Your task to perform on an android device: turn on location history Image 0: 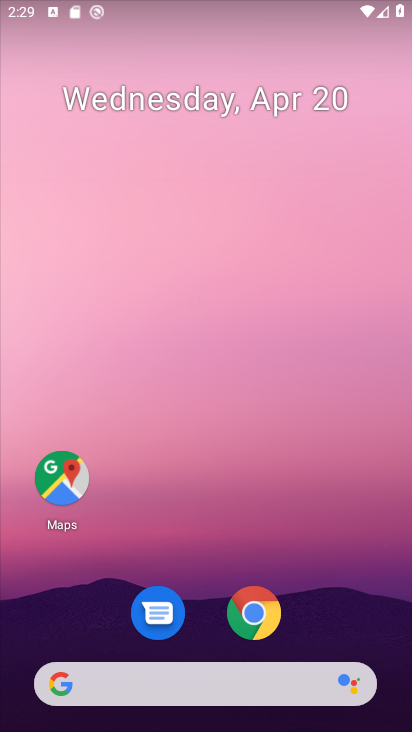
Step 0: drag from (282, 398) to (262, 8)
Your task to perform on an android device: turn on location history Image 1: 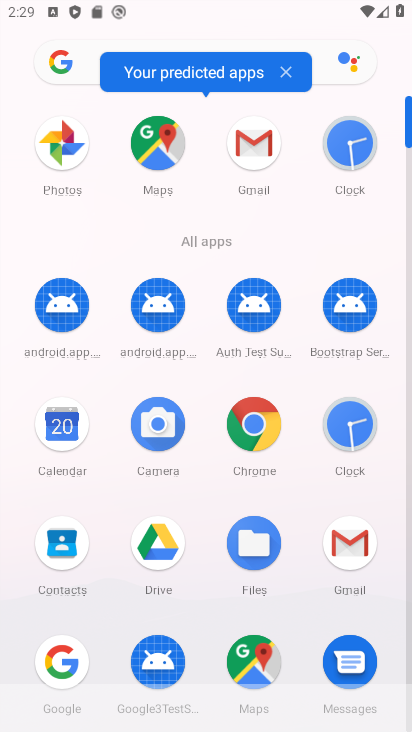
Step 1: drag from (215, 477) to (245, 205)
Your task to perform on an android device: turn on location history Image 2: 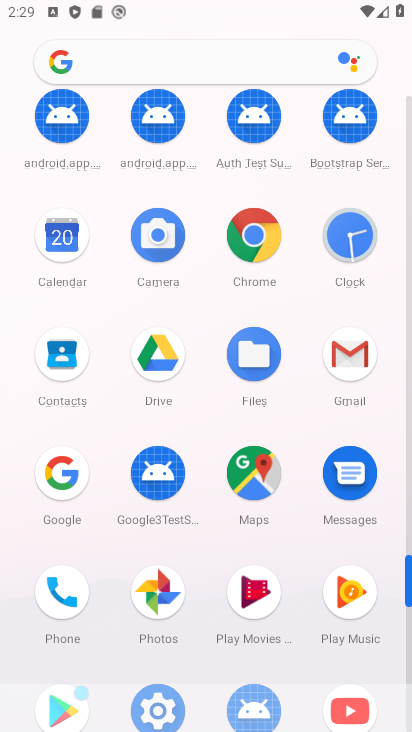
Step 2: drag from (212, 578) to (220, 274)
Your task to perform on an android device: turn on location history Image 3: 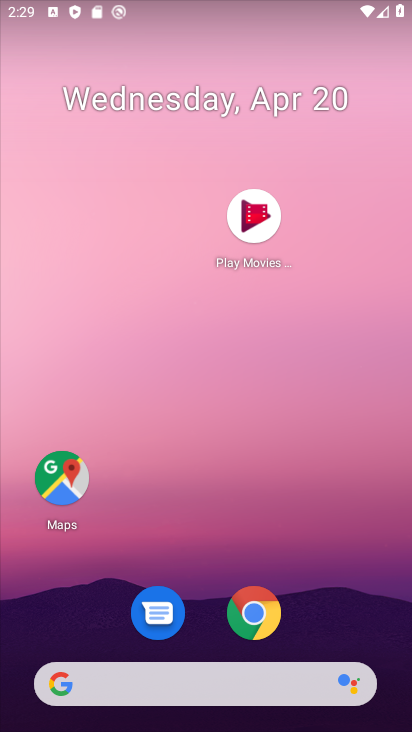
Step 3: drag from (216, 522) to (212, 35)
Your task to perform on an android device: turn on location history Image 4: 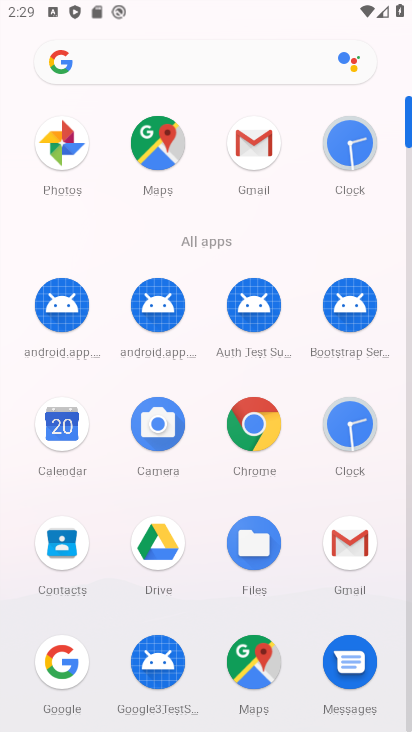
Step 4: drag from (212, 439) to (214, 212)
Your task to perform on an android device: turn on location history Image 5: 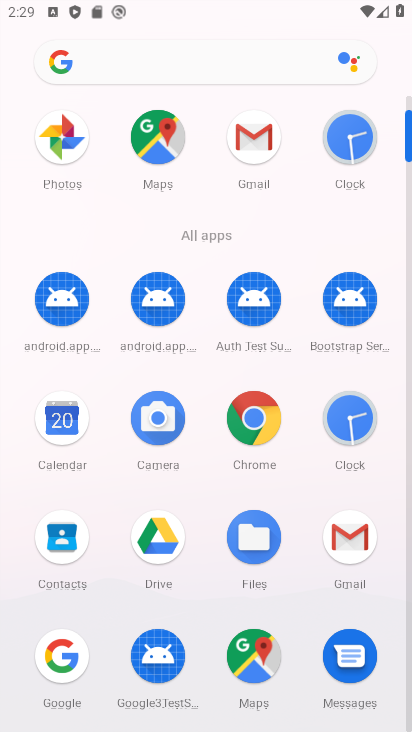
Step 5: drag from (208, 394) to (194, 203)
Your task to perform on an android device: turn on location history Image 6: 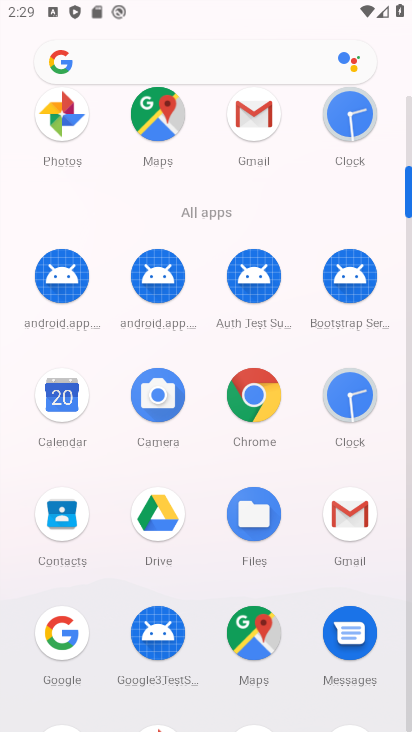
Step 6: drag from (209, 544) to (205, 173)
Your task to perform on an android device: turn on location history Image 7: 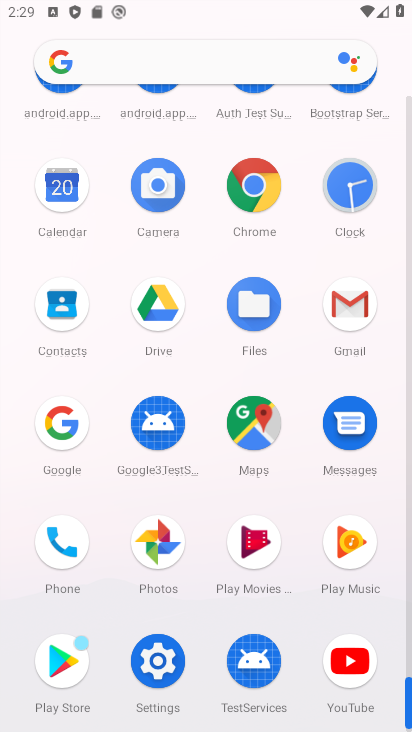
Step 7: click (164, 668)
Your task to perform on an android device: turn on location history Image 8: 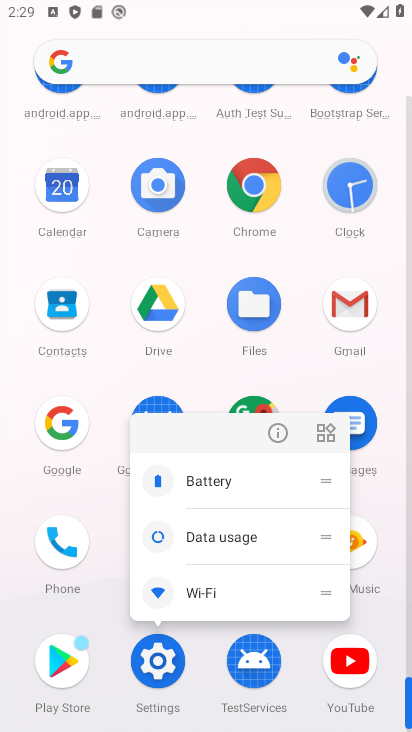
Step 8: click (291, 437)
Your task to perform on an android device: turn on location history Image 9: 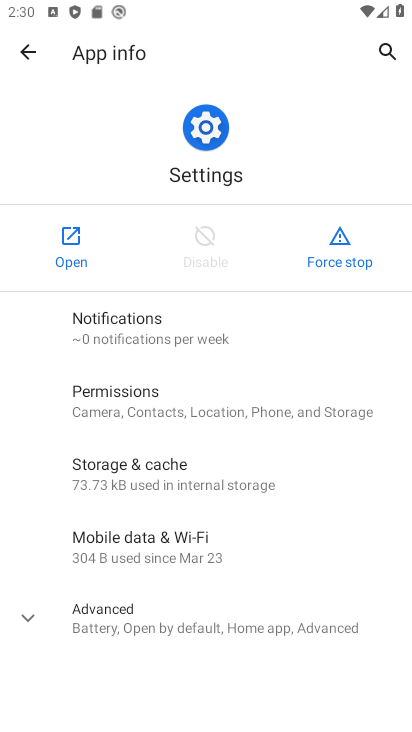
Step 9: click (74, 254)
Your task to perform on an android device: turn on location history Image 10: 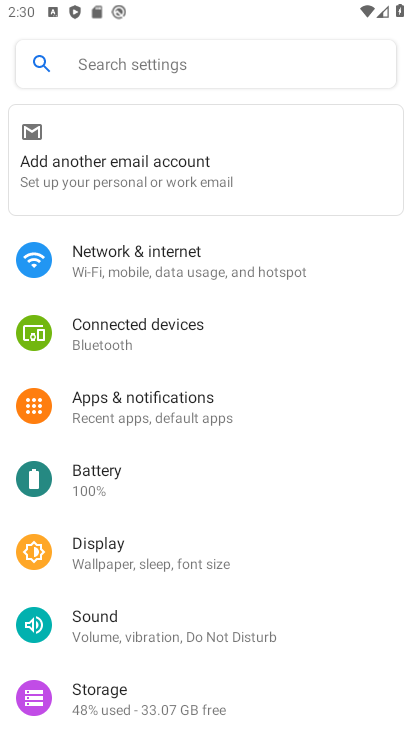
Step 10: drag from (197, 660) to (198, 375)
Your task to perform on an android device: turn on location history Image 11: 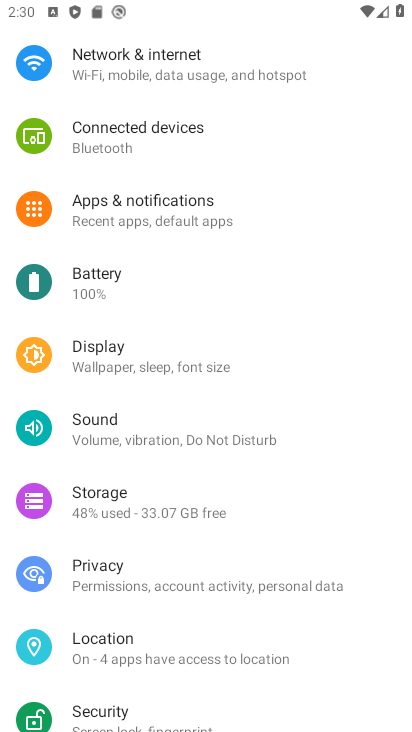
Step 11: click (196, 654)
Your task to perform on an android device: turn on location history Image 12: 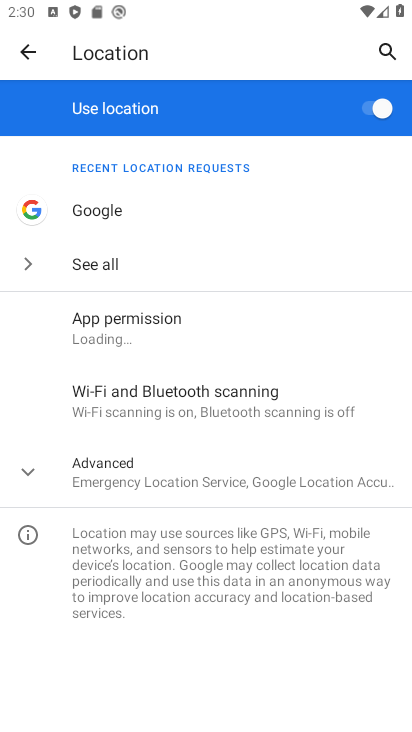
Step 12: click (200, 487)
Your task to perform on an android device: turn on location history Image 13: 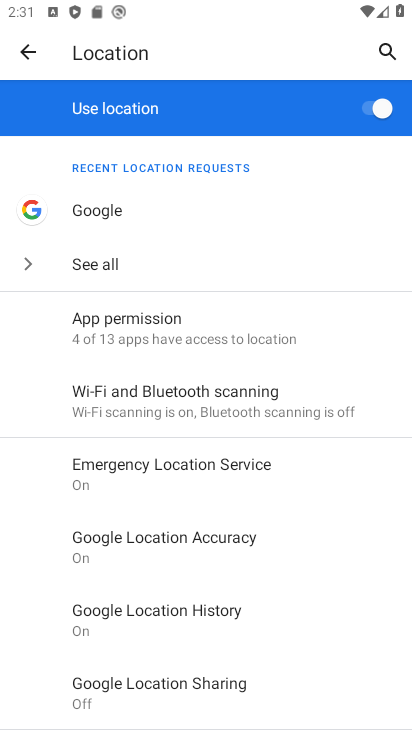
Step 13: task complete